Your task to perform on an android device: change alarm snooze length Image 0: 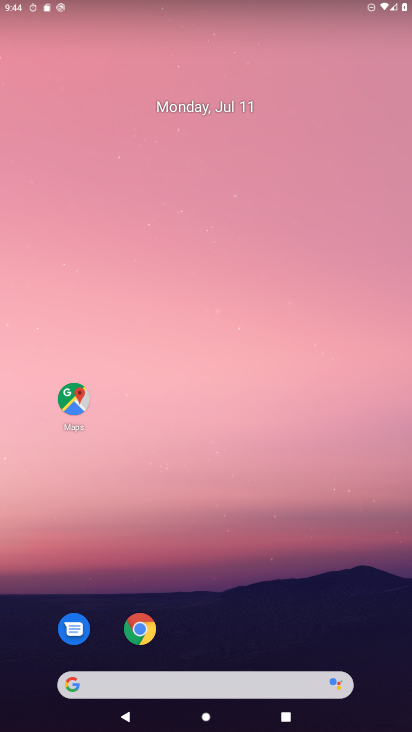
Step 0: drag from (254, 563) to (206, 17)
Your task to perform on an android device: change alarm snooze length Image 1: 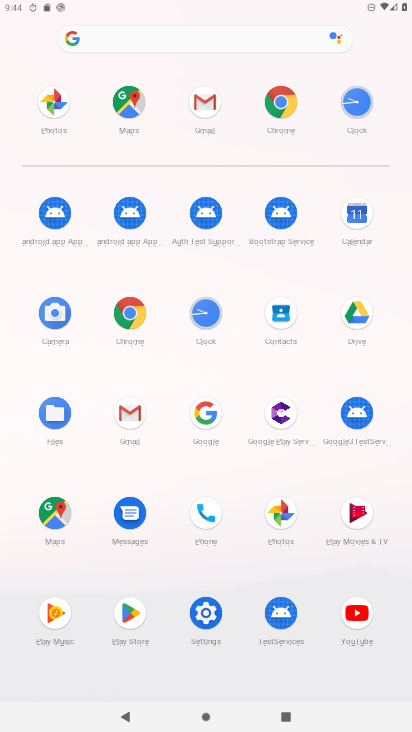
Step 1: click (345, 110)
Your task to perform on an android device: change alarm snooze length Image 2: 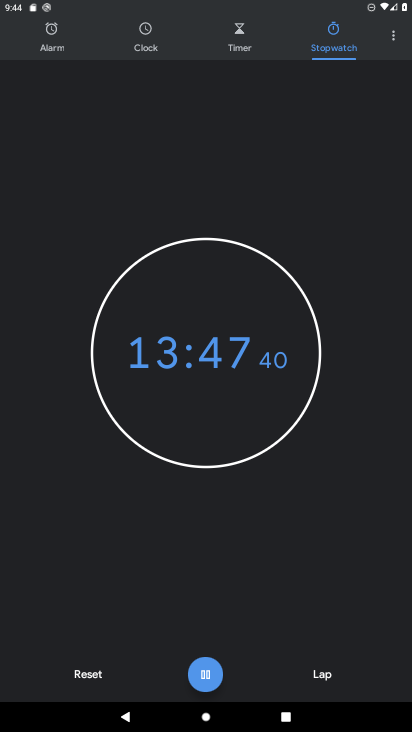
Step 2: click (400, 44)
Your task to perform on an android device: change alarm snooze length Image 3: 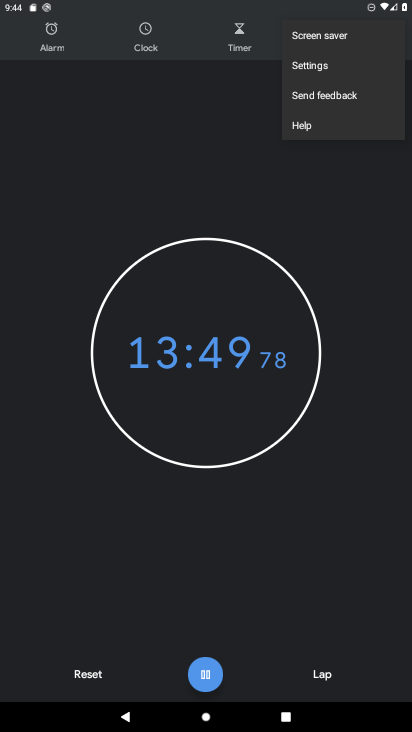
Step 3: click (344, 67)
Your task to perform on an android device: change alarm snooze length Image 4: 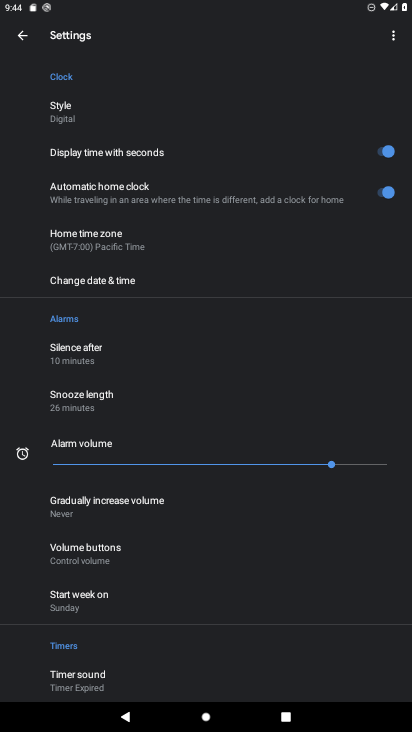
Step 4: click (181, 403)
Your task to perform on an android device: change alarm snooze length Image 5: 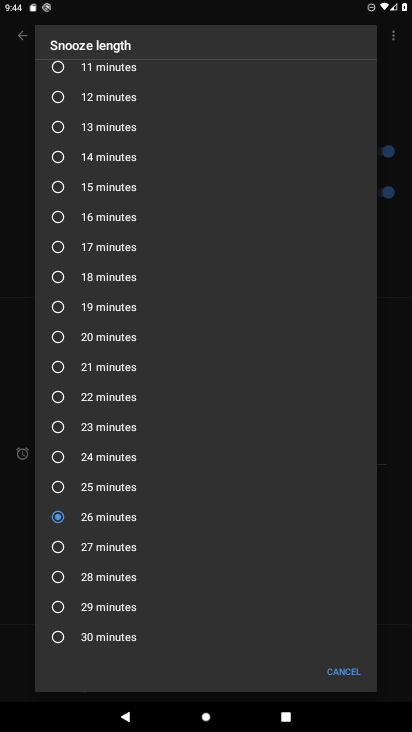
Step 5: click (181, 403)
Your task to perform on an android device: change alarm snooze length Image 6: 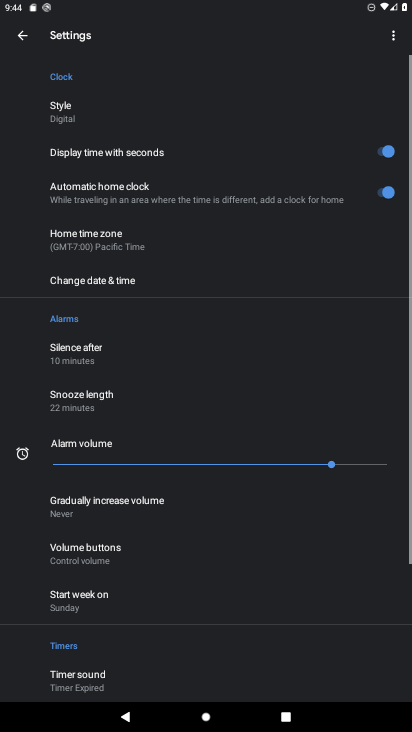
Step 6: task complete